Your task to perform on an android device: turn on the 24-hour format for clock Image 0: 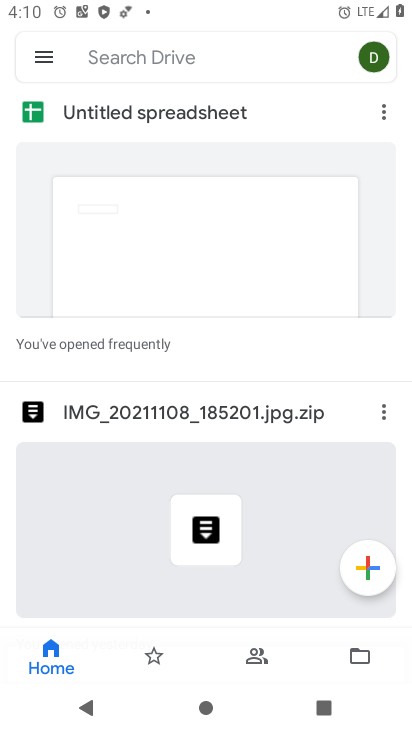
Step 0: press home button
Your task to perform on an android device: turn on the 24-hour format for clock Image 1: 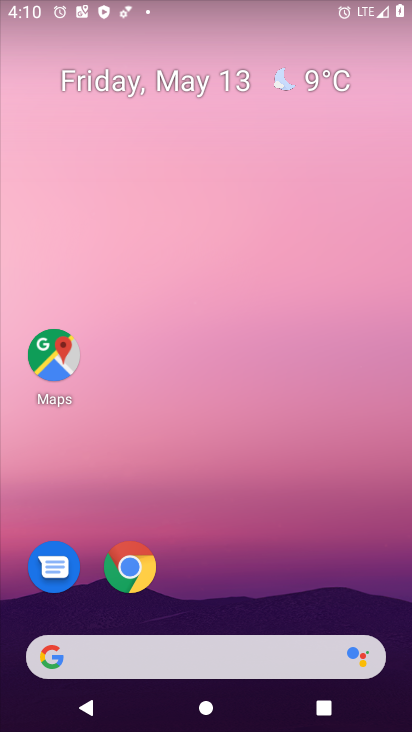
Step 1: drag from (283, 446) to (351, 13)
Your task to perform on an android device: turn on the 24-hour format for clock Image 2: 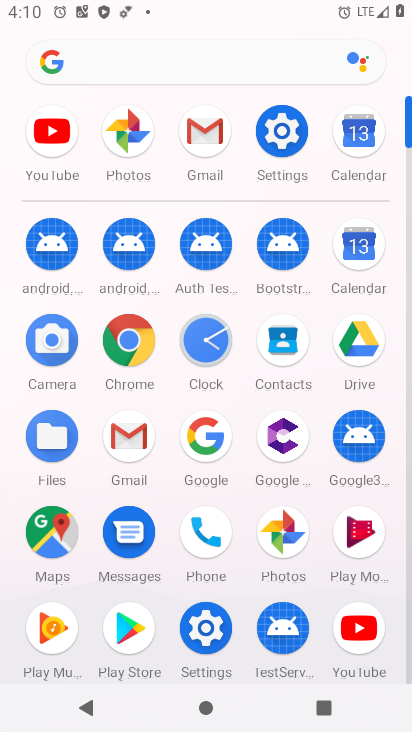
Step 2: click (211, 341)
Your task to perform on an android device: turn on the 24-hour format for clock Image 3: 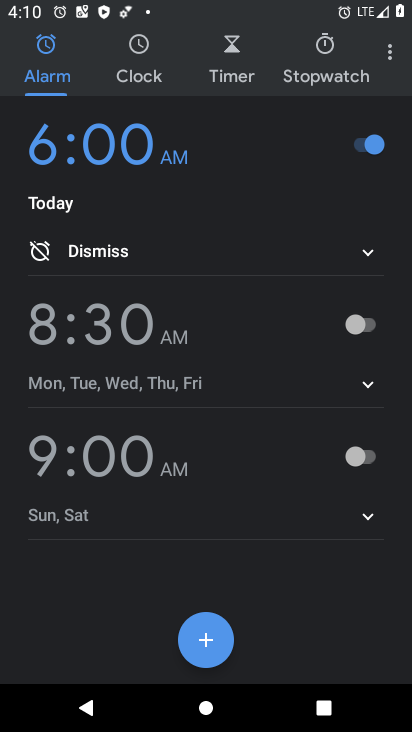
Step 3: click (391, 55)
Your task to perform on an android device: turn on the 24-hour format for clock Image 4: 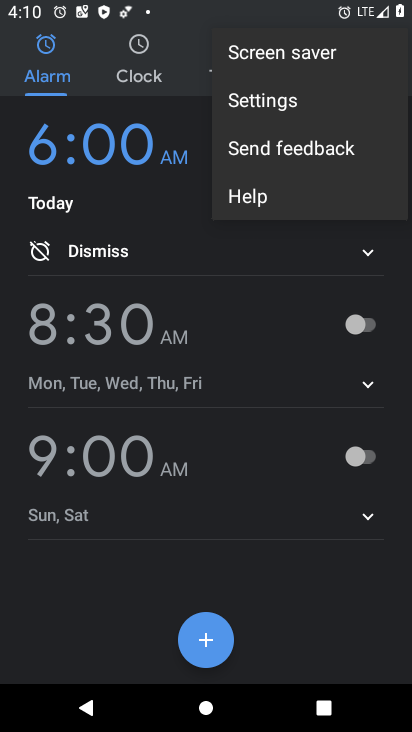
Step 4: click (269, 108)
Your task to perform on an android device: turn on the 24-hour format for clock Image 5: 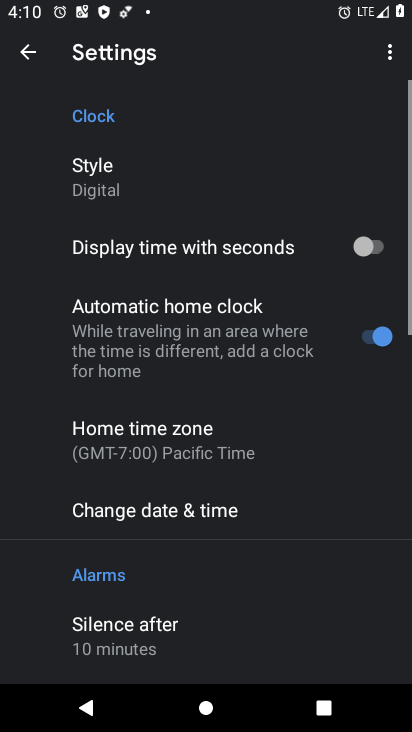
Step 5: click (185, 521)
Your task to perform on an android device: turn on the 24-hour format for clock Image 6: 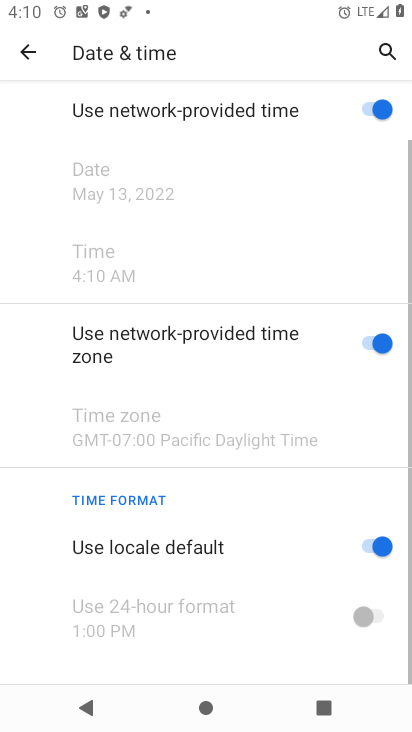
Step 6: drag from (185, 565) to (216, 363)
Your task to perform on an android device: turn on the 24-hour format for clock Image 7: 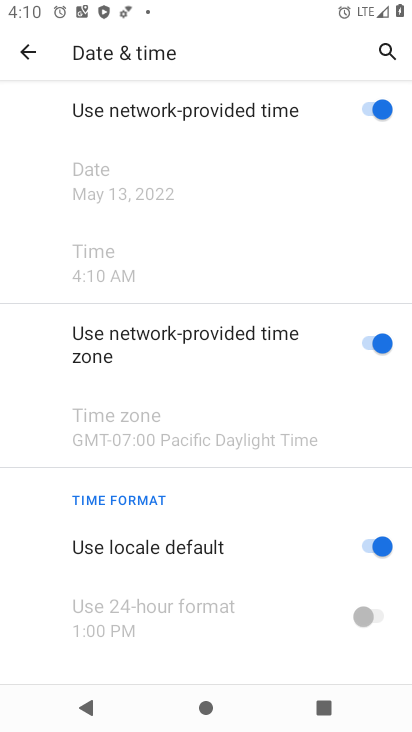
Step 7: click (377, 553)
Your task to perform on an android device: turn on the 24-hour format for clock Image 8: 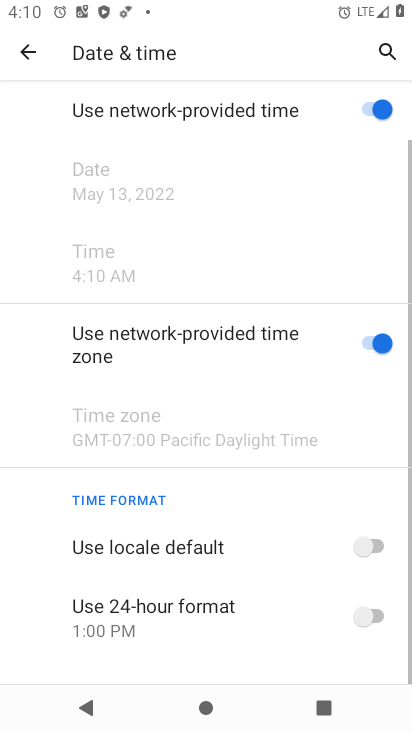
Step 8: click (366, 620)
Your task to perform on an android device: turn on the 24-hour format for clock Image 9: 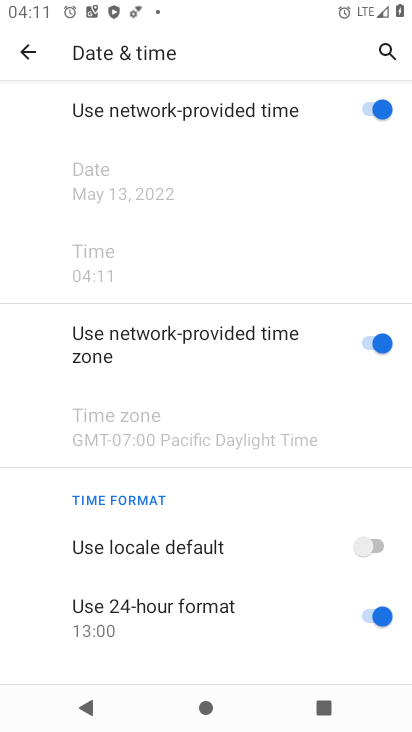
Step 9: task complete